Your task to perform on an android device: Open Google Maps Image 0: 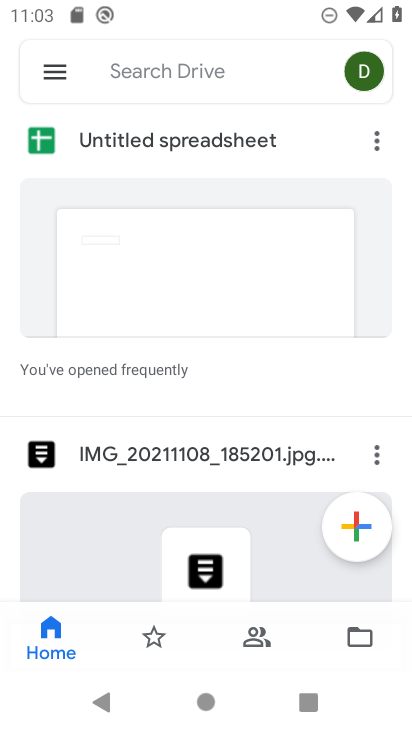
Step 0: press home button
Your task to perform on an android device: Open Google Maps Image 1: 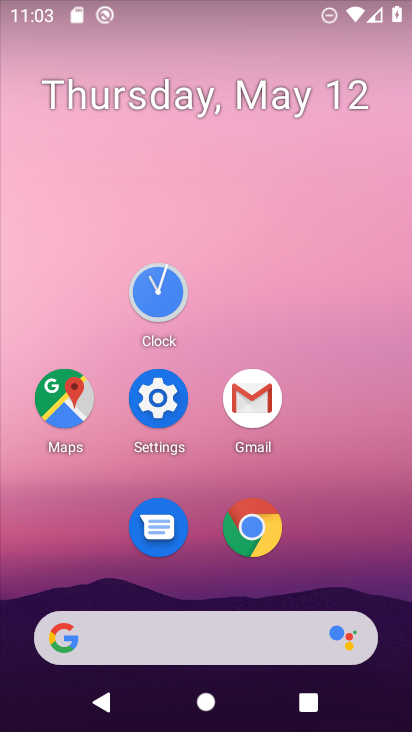
Step 1: click (58, 398)
Your task to perform on an android device: Open Google Maps Image 2: 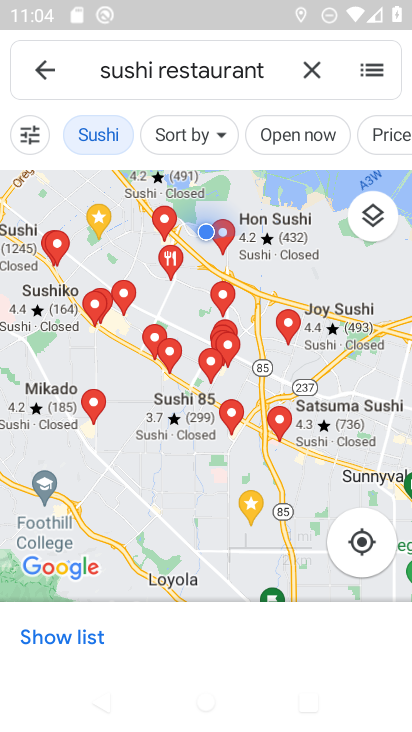
Step 2: task complete